Your task to perform on an android device: open device folders in google photos Image 0: 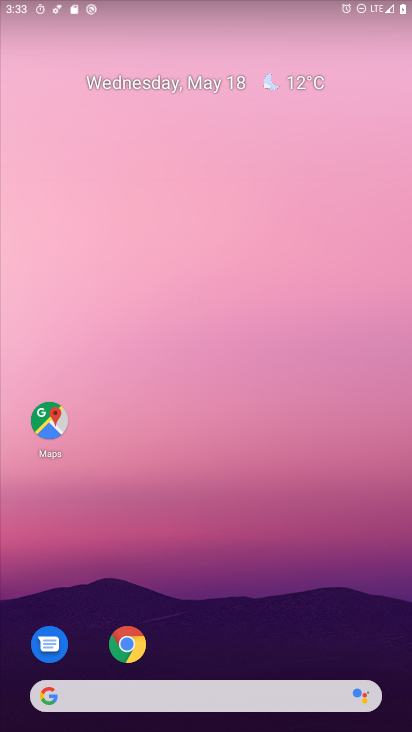
Step 0: drag from (402, 601) to (376, 118)
Your task to perform on an android device: open device folders in google photos Image 1: 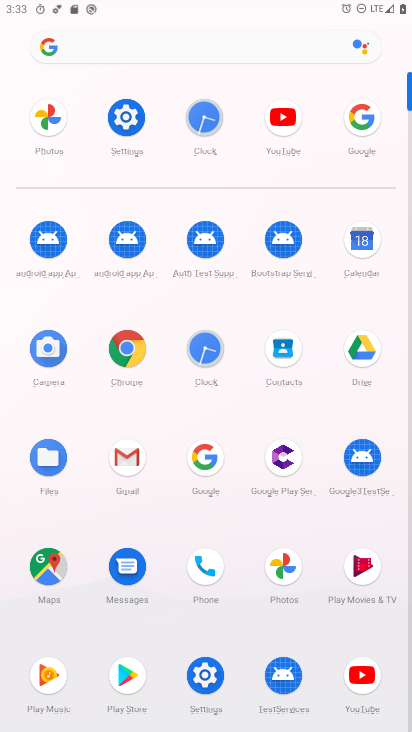
Step 1: click (276, 563)
Your task to perform on an android device: open device folders in google photos Image 2: 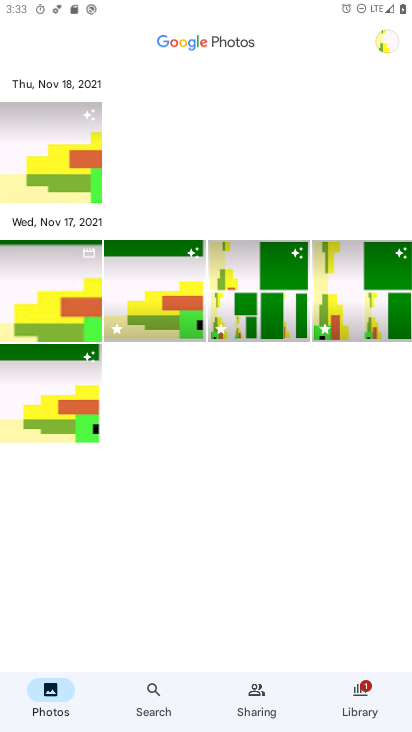
Step 2: task complete